Your task to perform on an android device: Is it going to rain tomorrow? Image 0: 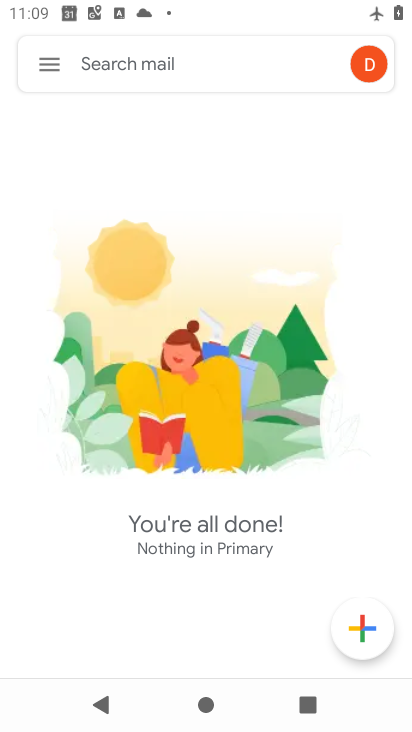
Step 0: press home button
Your task to perform on an android device: Is it going to rain tomorrow? Image 1: 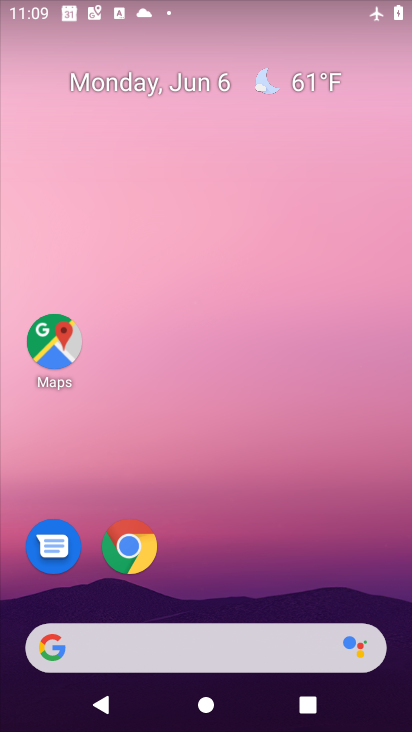
Step 1: click (296, 87)
Your task to perform on an android device: Is it going to rain tomorrow? Image 2: 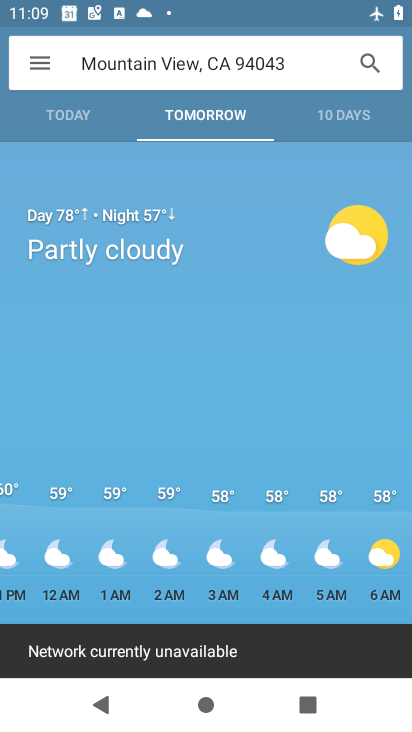
Step 2: task complete